Your task to perform on an android device: Check the weather Image 0: 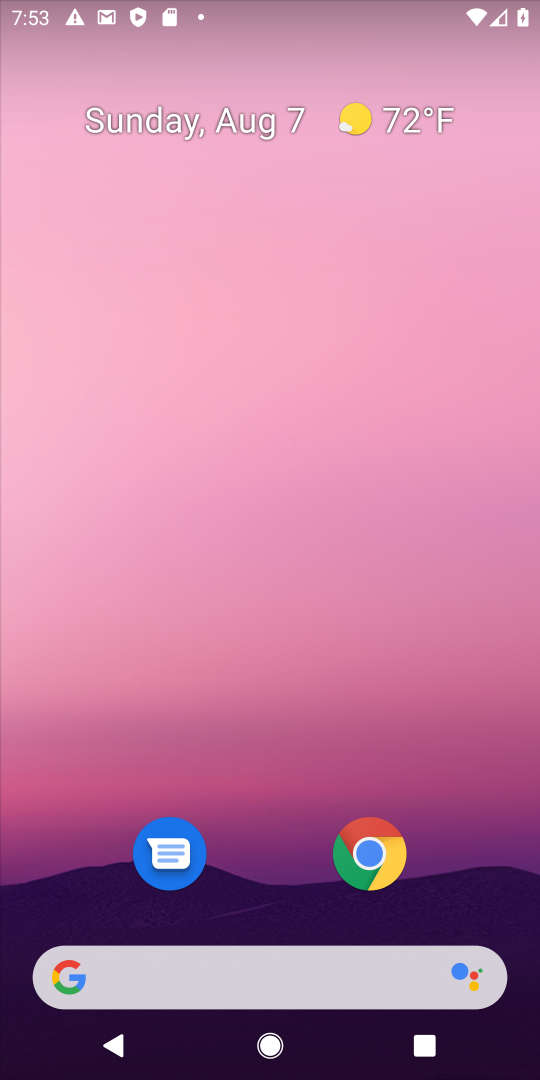
Step 0: drag from (339, 814) to (332, 220)
Your task to perform on an android device: Check the weather Image 1: 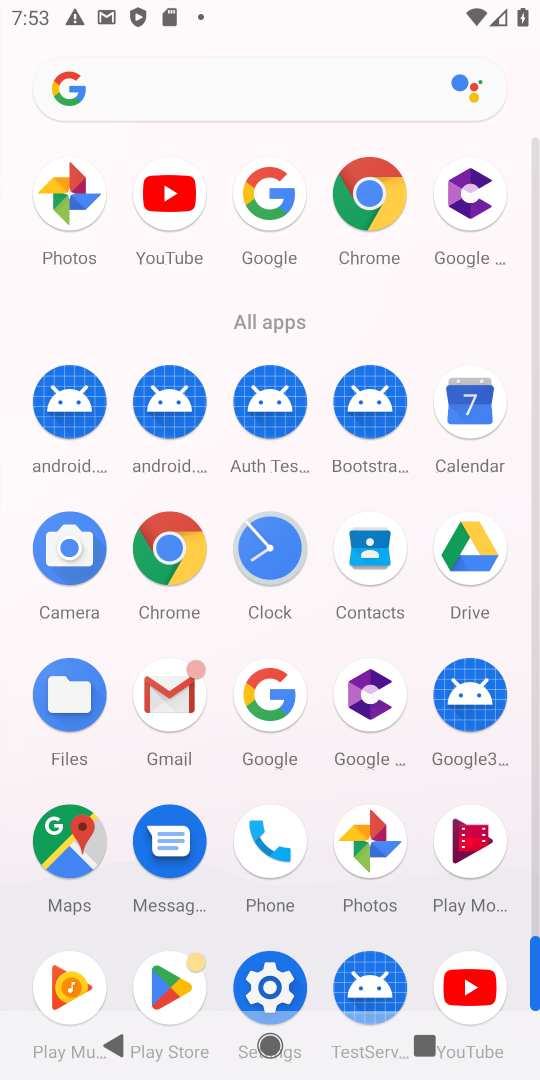
Step 1: click (288, 727)
Your task to perform on an android device: Check the weather Image 2: 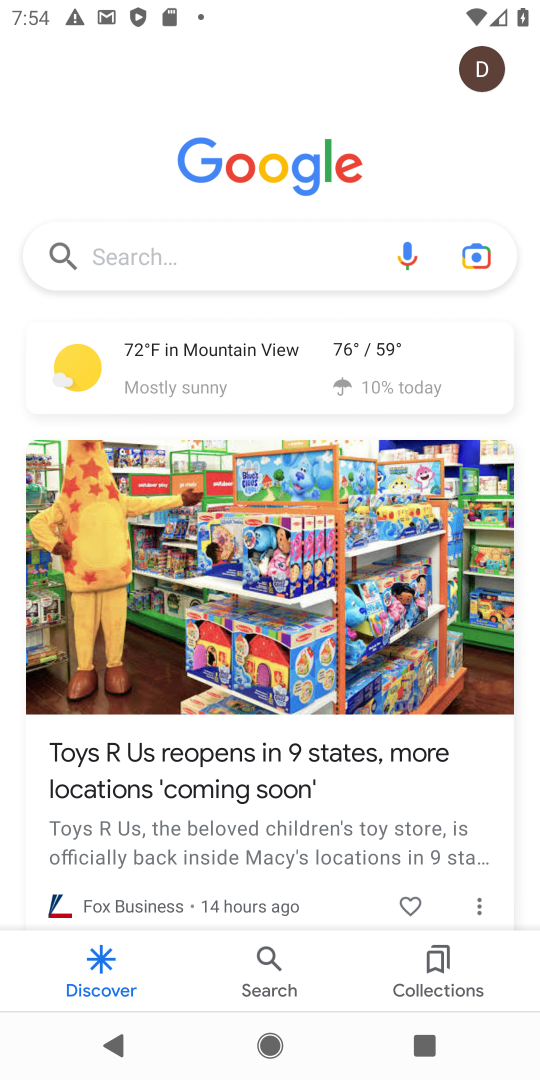
Step 2: click (214, 253)
Your task to perform on an android device: Check the weather Image 3: 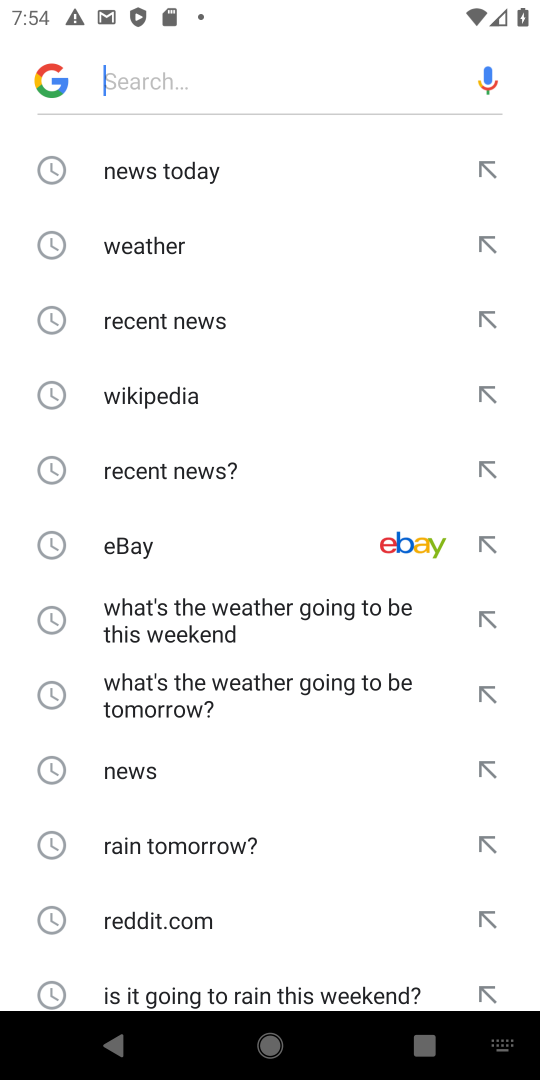
Step 3: click (213, 248)
Your task to perform on an android device: Check the weather Image 4: 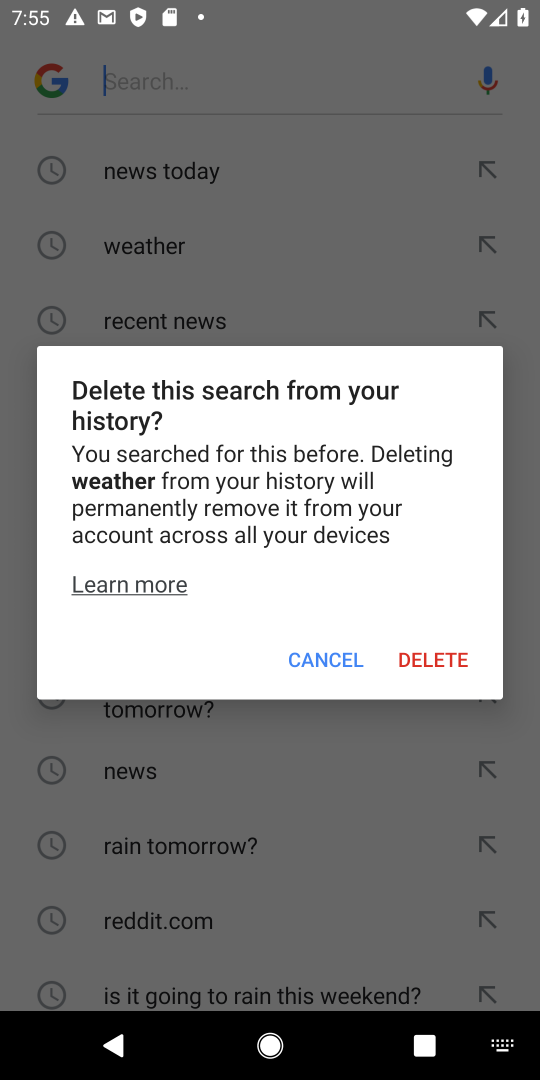
Step 4: click (420, 675)
Your task to perform on an android device: Check the weather Image 5: 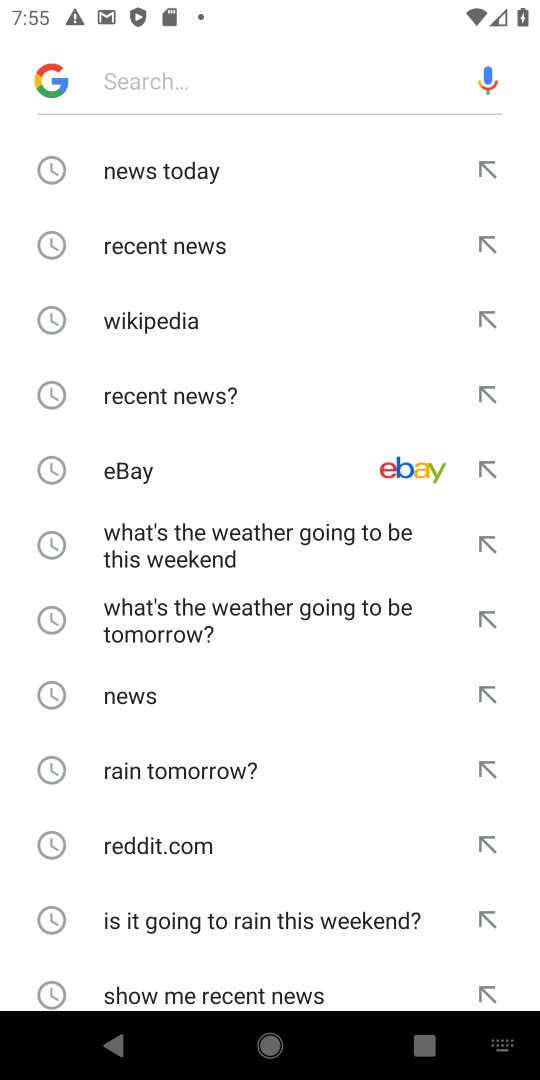
Step 5: drag from (147, 250) to (203, 499)
Your task to perform on an android device: Check the weather Image 6: 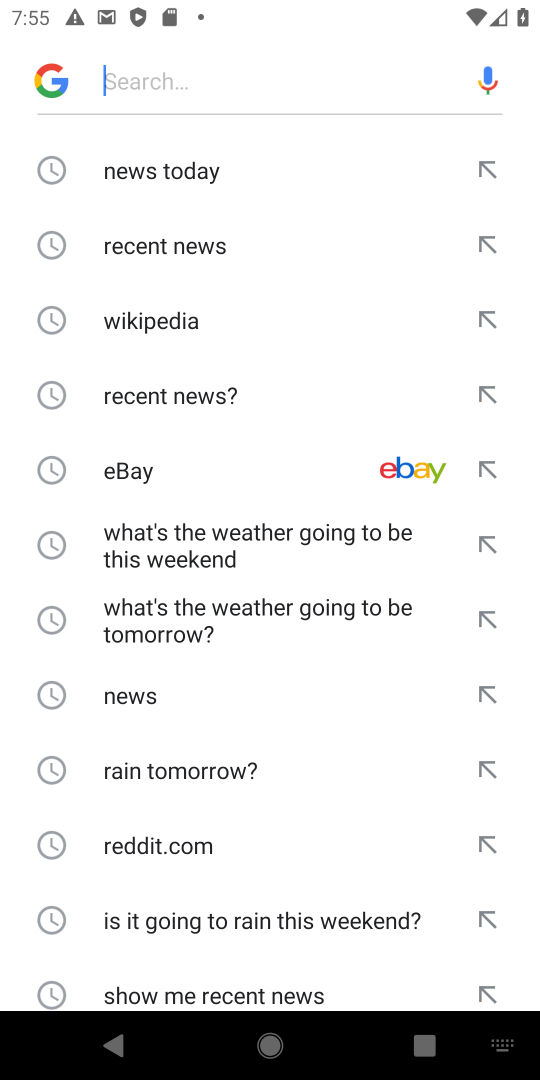
Step 6: type "weather"
Your task to perform on an android device: Check the weather Image 7: 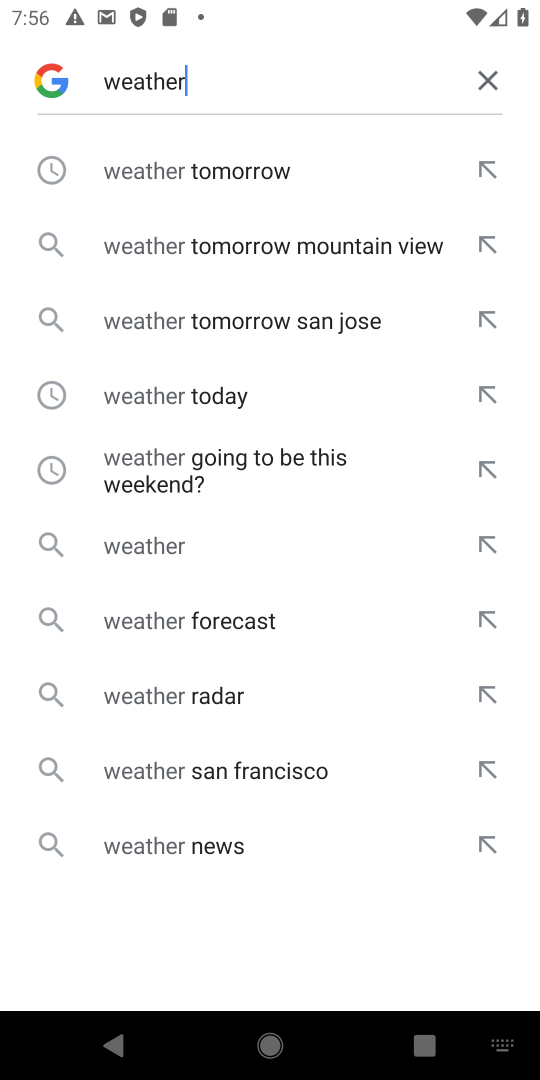
Step 7: click (251, 397)
Your task to perform on an android device: Check the weather Image 8: 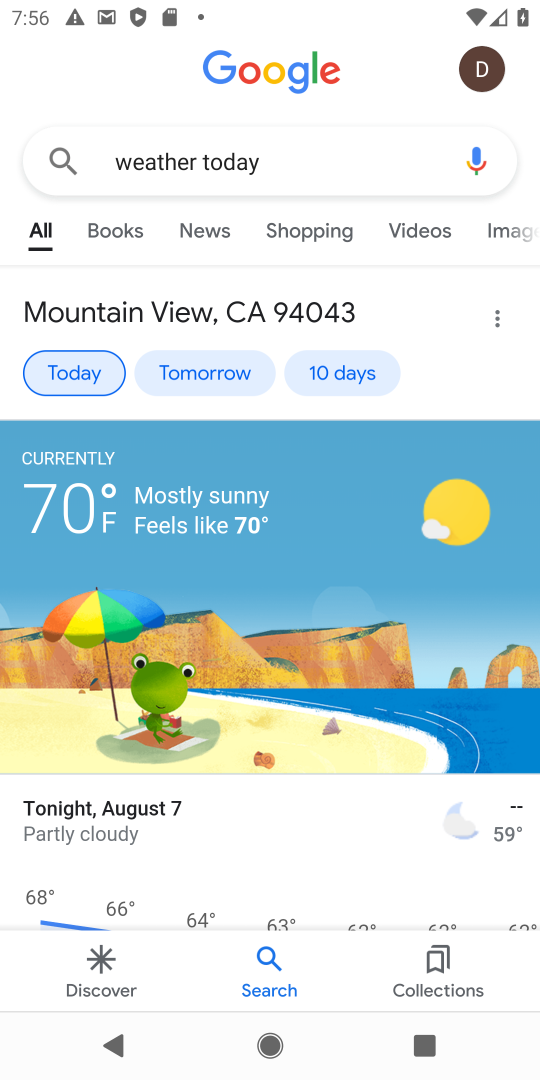
Step 8: task complete